Your task to perform on an android device: move a message to another label in the gmail app Image 0: 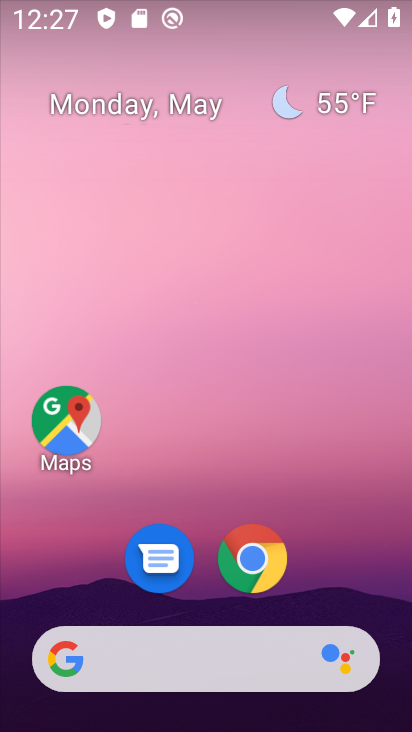
Step 0: drag from (295, 505) to (238, 19)
Your task to perform on an android device: move a message to another label in the gmail app Image 1: 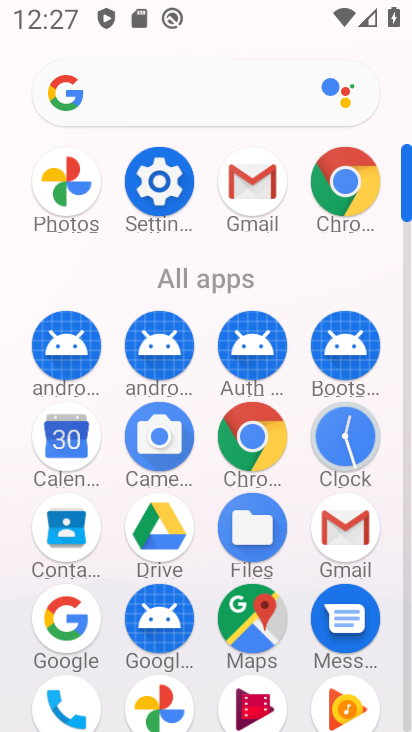
Step 1: drag from (16, 544) to (18, 247)
Your task to perform on an android device: move a message to another label in the gmail app Image 2: 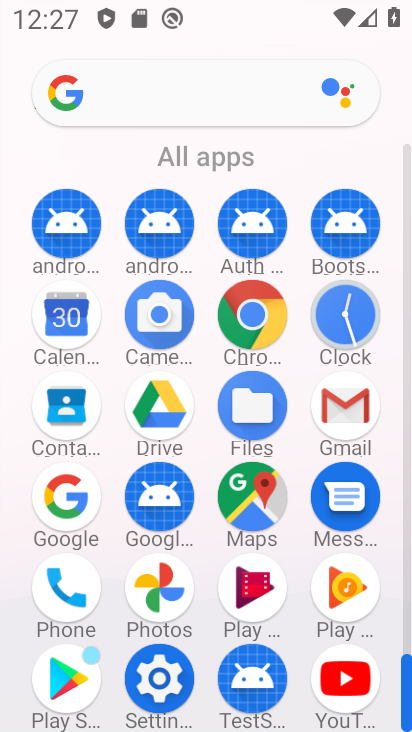
Step 2: click (344, 403)
Your task to perform on an android device: move a message to another label in the gmail app Image 3: 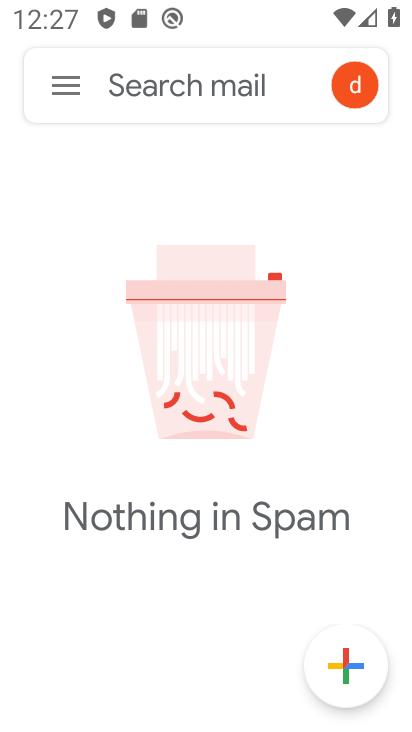
Step 3: click (72, 95)
Your task to perform on an android device: move a message to another label in the gmail app Image 4: 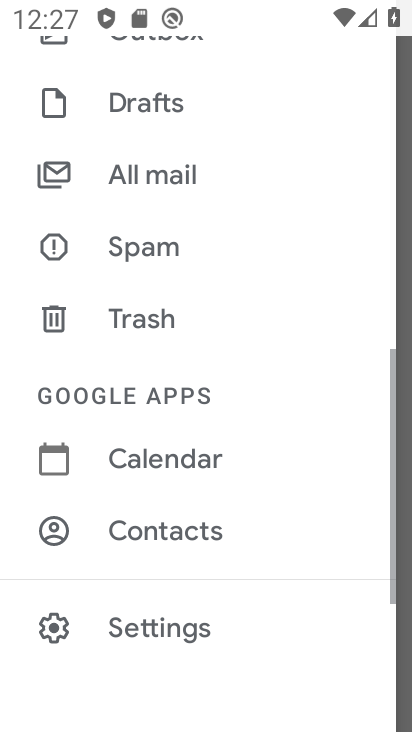
Step 4: drag from (225, 220) to (235, 596)
Your task to perform on an android device: move a message to another label in the gmail app Image 5: 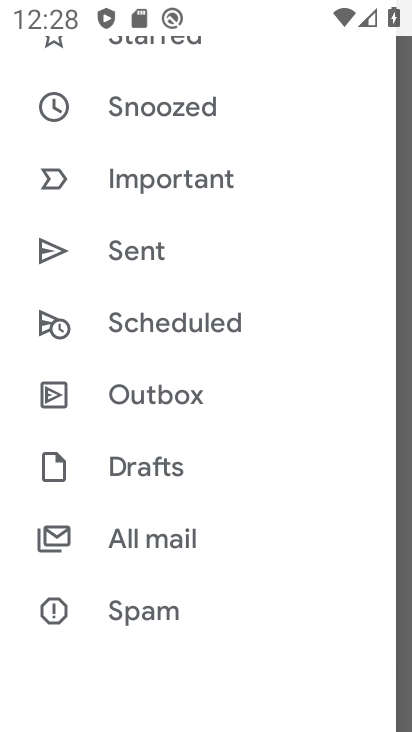
Step 5: drag from (202, 135) to (221, 582)
Your task to perform on an android device: move a message to another label in the gmail app Image 6: 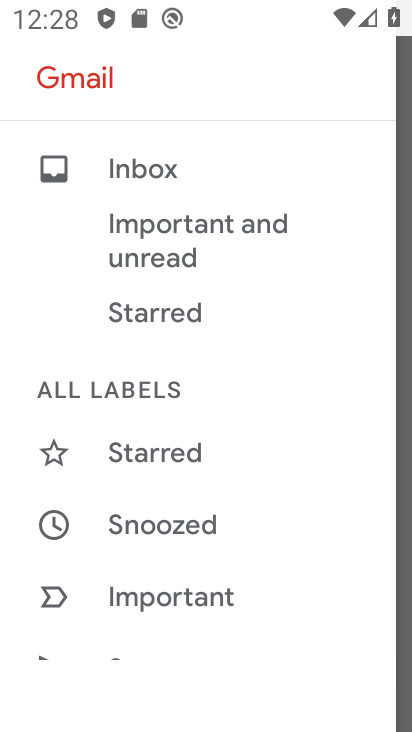
Step 6: click (187, 177)
Your task to perform on an android device: move a message to another label in the gmail app Image 7: 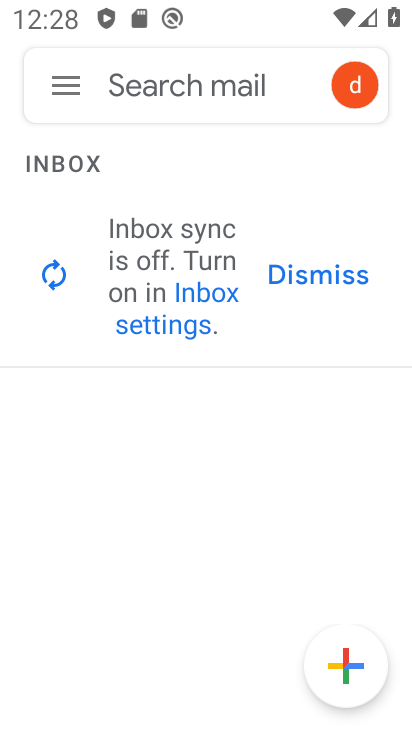
Step 7: click (58, 73)
Your task to perform on an android device: move a message to another label in the gmail app Image 8: 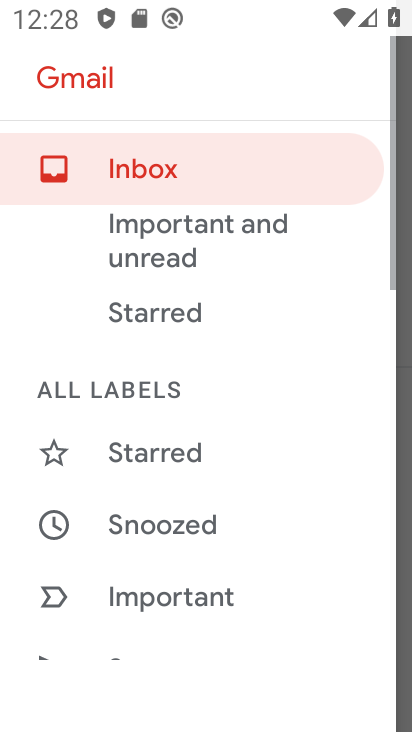
Step 8: drag from (230, 510) to (247, 166)
Your task to perform on an android device: move a message to another label in the gmail app Image 9: 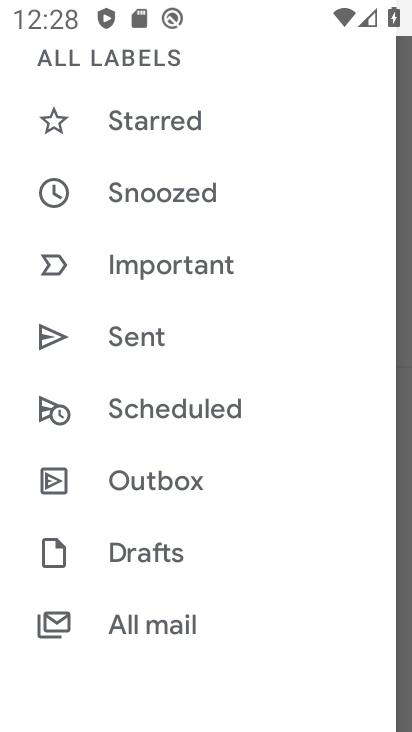
Step 9: click (156, 624)
Your task to perform on an android device: move a message to another label in the gmail app Image 10: 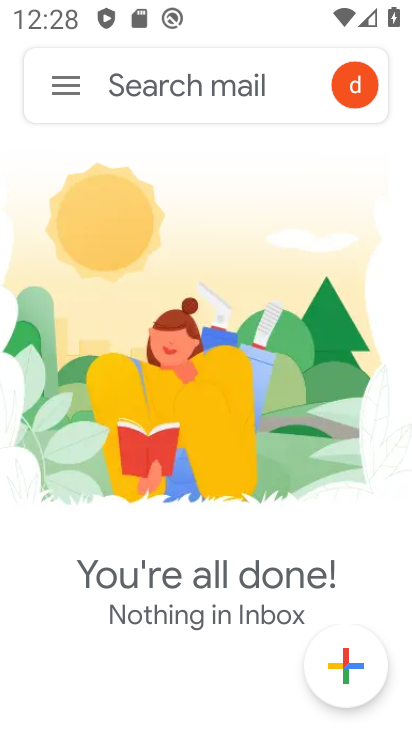
Step 10: task complete